Your task to perform on an android device: Open Google Maps Image 0: 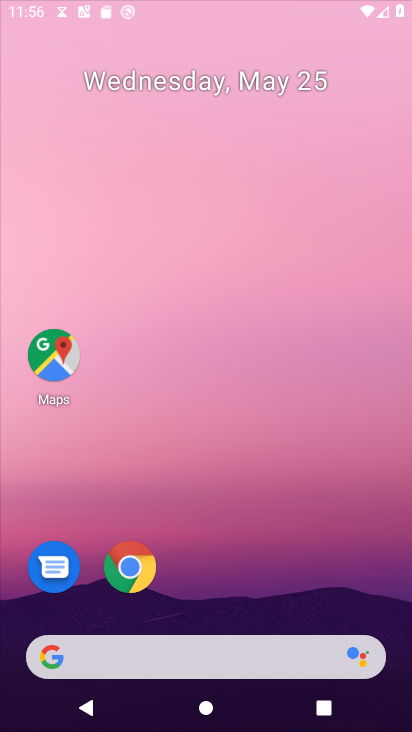
Step 0: drag from (247, 332) to (189, 9)
Your task to perform on an android device: Open Google Maps Image 1: 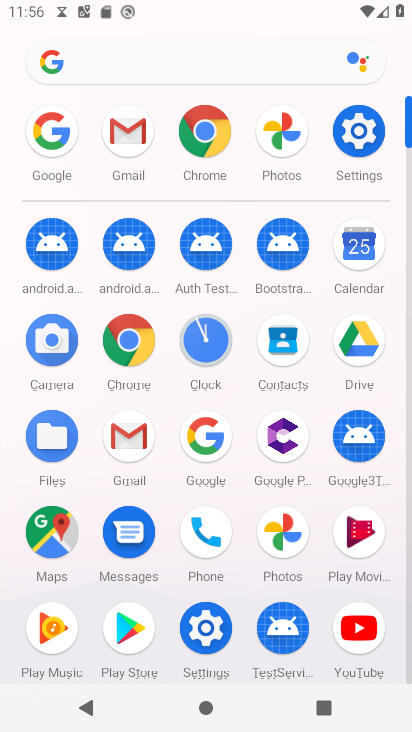
Step 1: click (49, 547)
Your task to perform on an android device: Open Google Maps Image 2: 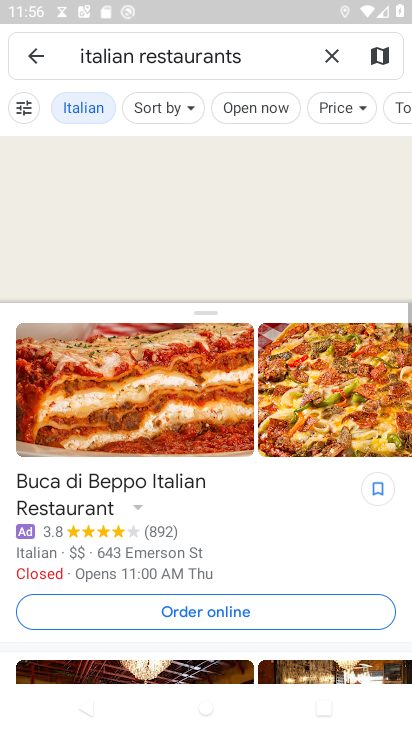
Step 2: task complete